Your task to perform on an android device: turn off priority inbox in the gmail app Image 0: 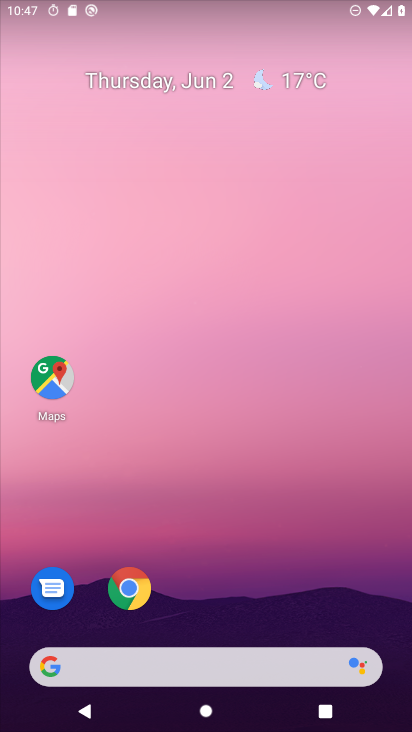
Step 0: drag from (251, 476) to (264, 415)
Your task to perform on an android device: turn off priority inbox in the gmail app Image 1: 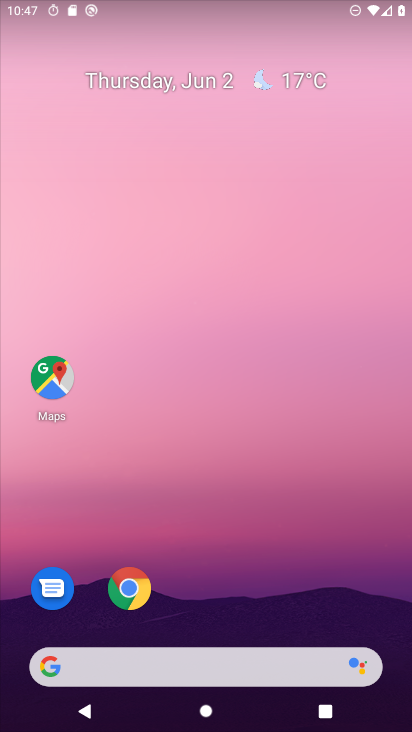
Step 1: drag from (251, 512) to (330, 12)
Your task to perform on an android device: turn off priority inbox in the gmail app Image 2: 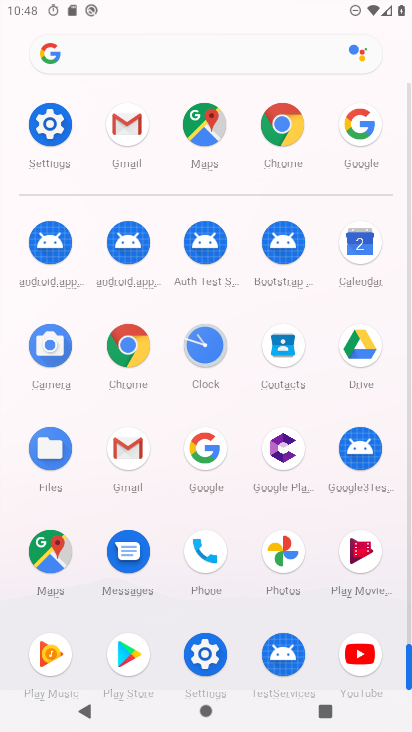
Step 2: click (125, 133)
Your task to perform on an android device: turn off priority inbox in the gmail app Image 3: 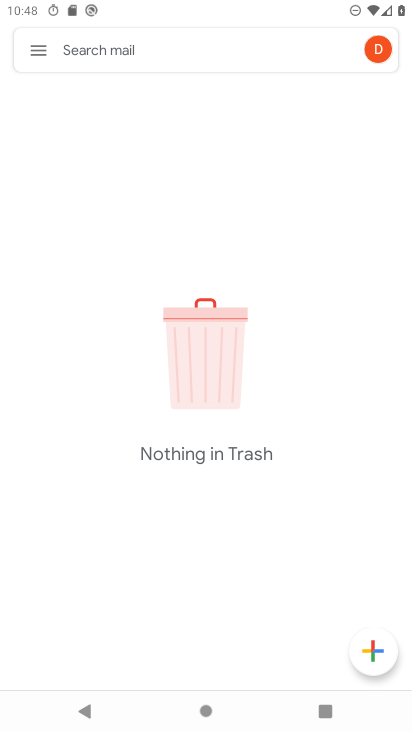
Step 3: click (36, 42)
Your task to perform on an android device: turn off priority inbox in the gmail app Image 4: 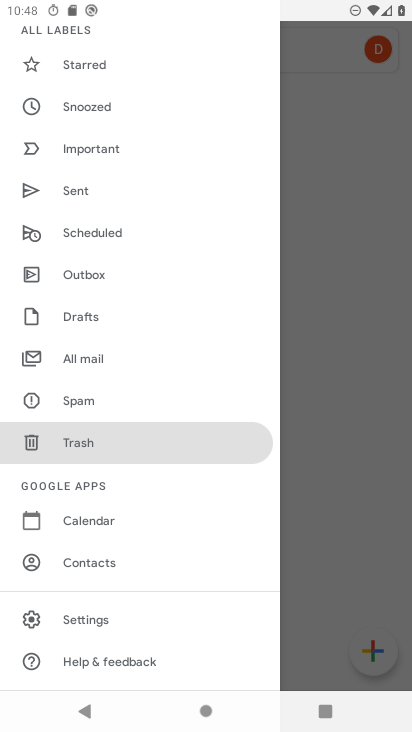
Step 4: click (96, 622)
Your task to perform on an android device: turn off priority inbox in the gmail app Image 5: 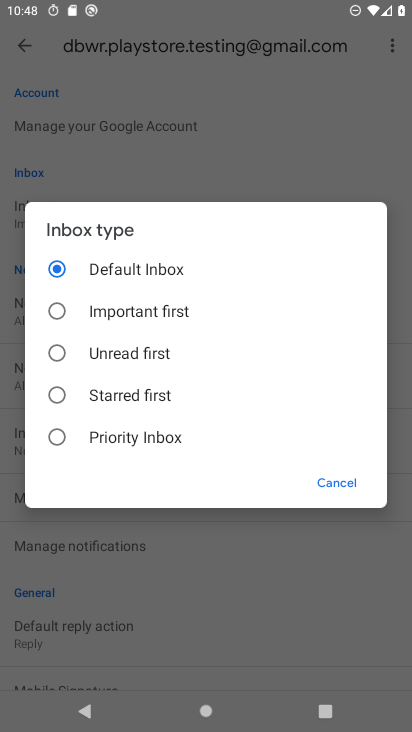
Step 5: task complete